Your task to perform on an android device: turn off location history Image 0: 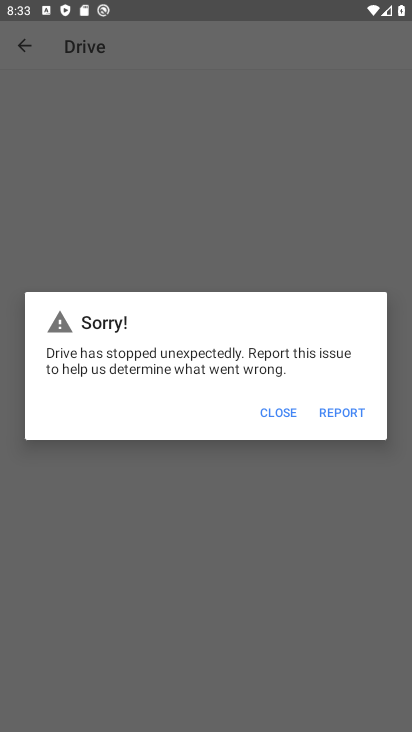
Step 0: press home button
Your task to perform on an android device: turn off location history Image 1: 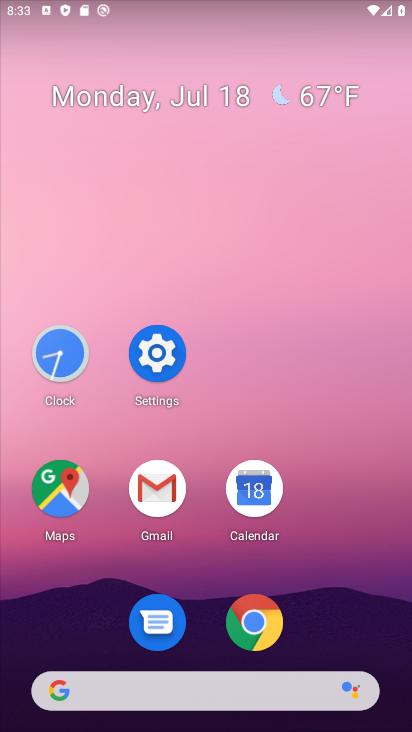
Step 1: click (151, 355)
Your task to perform on an android device: turn off location history Image 2: 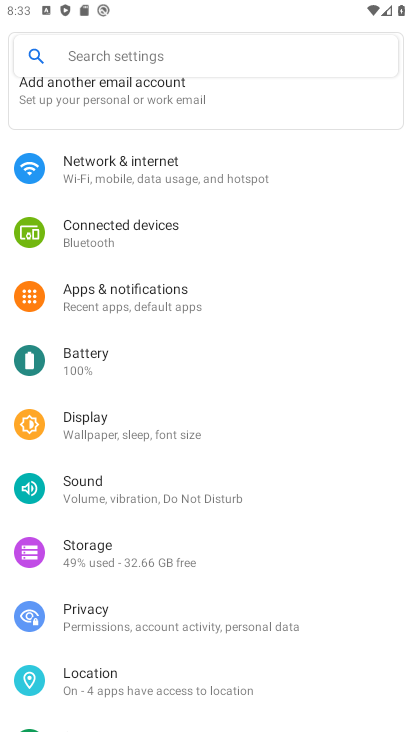
Step 2: click (80, 675)
Your task to perform on an android device: turn off location history Image 3: 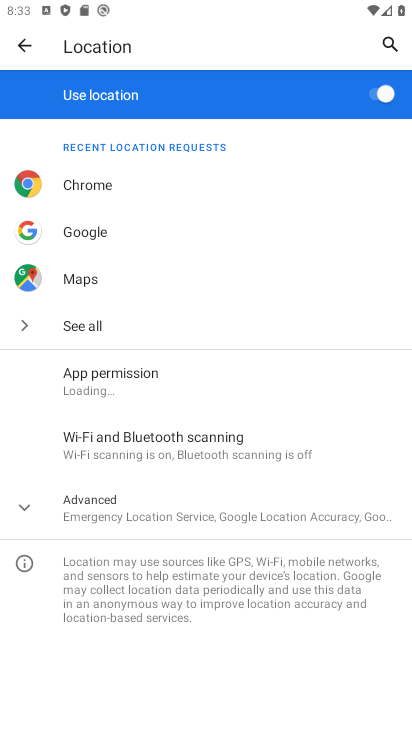
Step 3: click (22, 512)
Your task to perform on an android device: turn off location history Image 4: 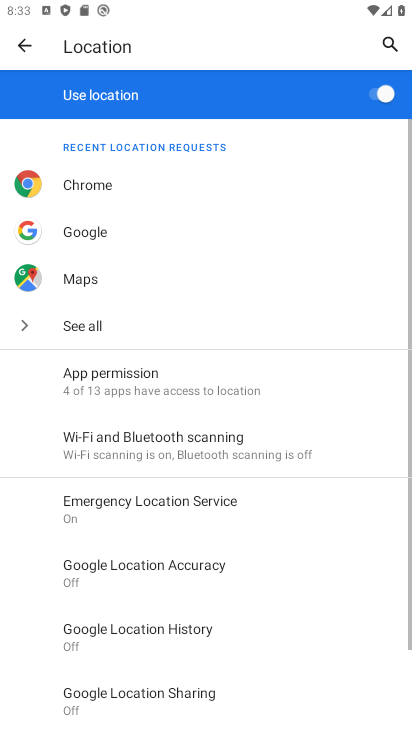
Step 4: click (108, 634)
Your task to perform on an android device: turn off location history Image 5: 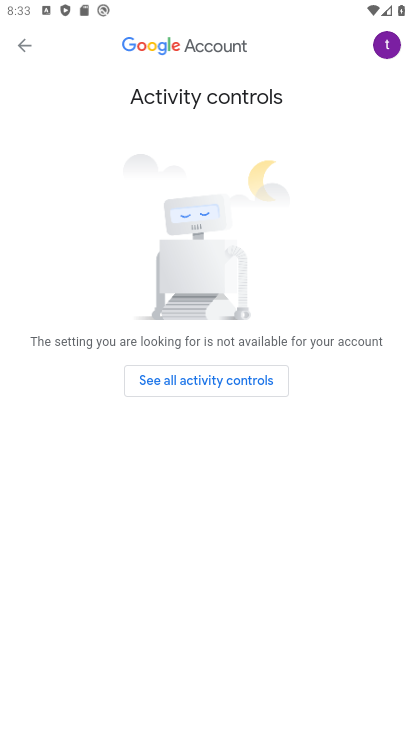
Step 5: task complete